Your task to perform on an android device: Go to network settings Image 0: 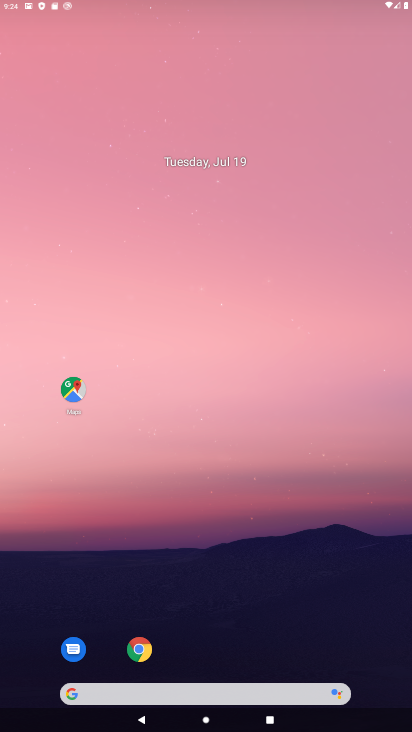
Step 0: press home button
Your task to perform on an android device: Go to network settings Image 1: 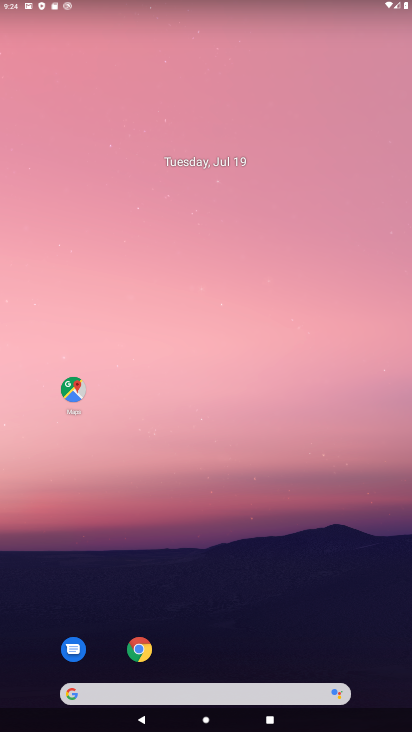
Step 1: drag from (360, 604) to (180, 79)
Your task to perform on an android device: Go to network settings Image 2: 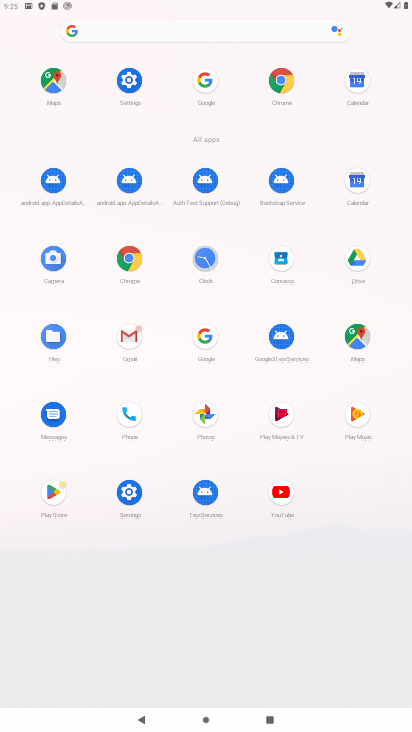
Step 2: click (116, 498)
Your task to perform on an android device: Go to network settings Image 3: 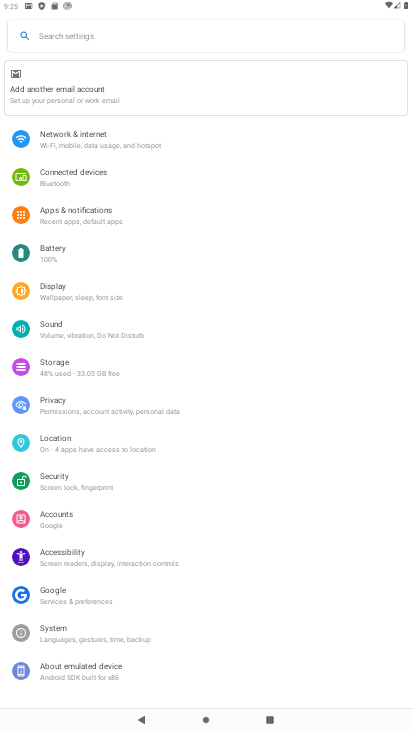
Step 3: click (141, 130)
Your task to perform on an android device: Go to network settings Image 4: 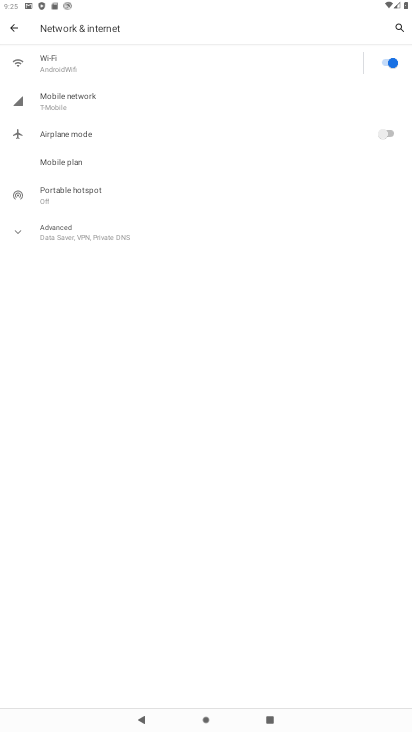
Step 4: task complete